Your task to perform on an android device: Open maps Image 0: 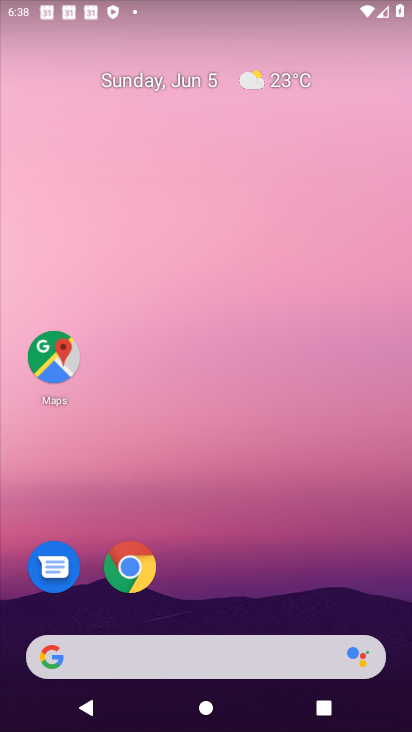
Step 0: drag from (346, 513) to (261, 25)
Your task to perform on an android device: Open maps Image 1: 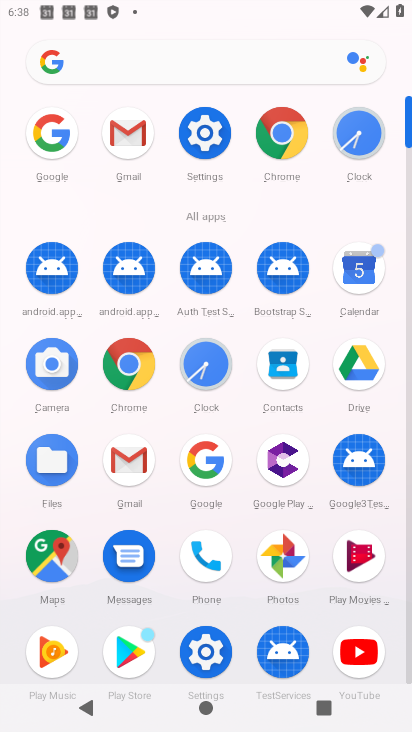
Step 1: click (48, 558)
Your task to perform on an android device: Open maps Image 2: 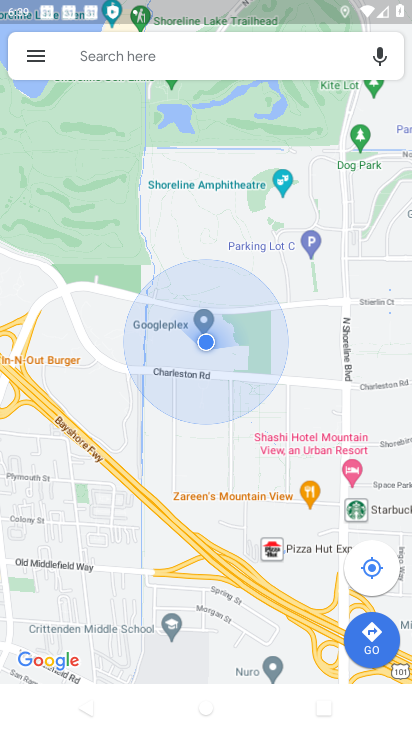
Step 2: task complete